Your task to perform on an android device: Open location settings Image 0: 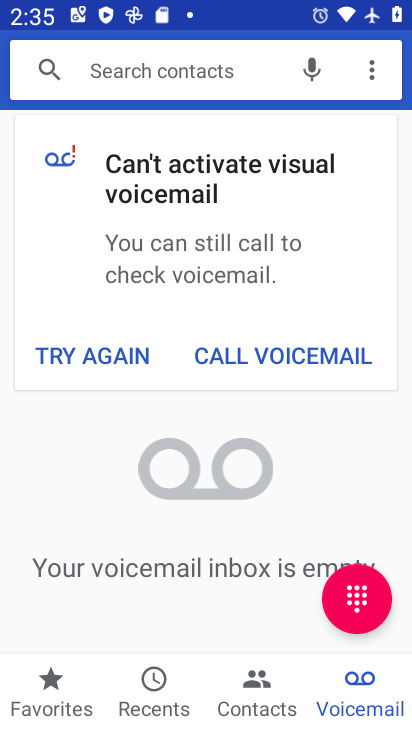
Step 0: press home button
Your task to perform on an android device: Open location settings Image 1: 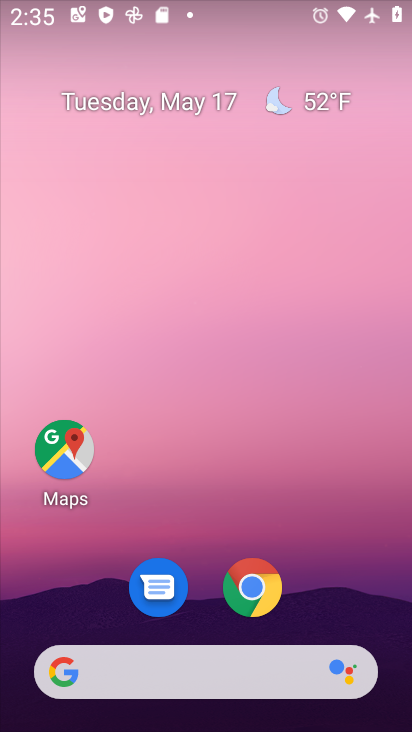
Step 1: drag from (349, 573) to (373, 73)
Your task to perform on an android device: Open location settings Image 2: 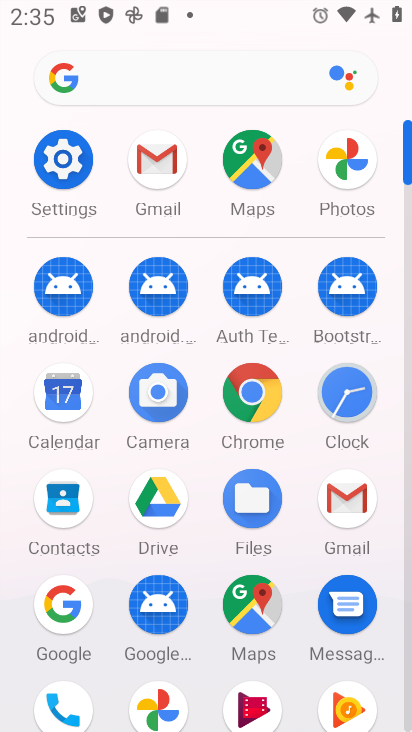
Step 2: click (78, 207)
Your task to perform on an android device: Open location settings Image 3: 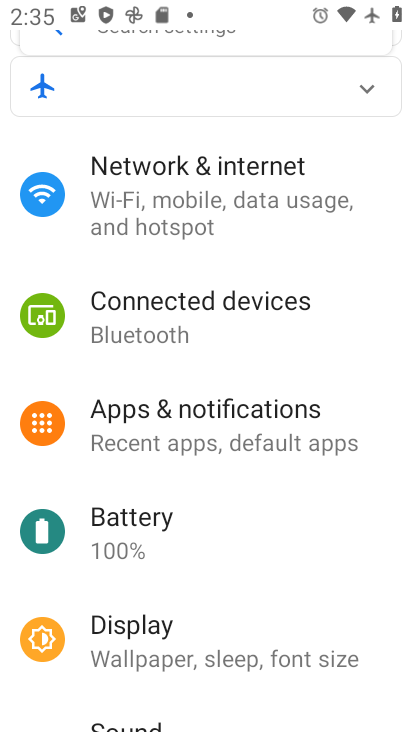
Step 3: click (283, 657)
Your task to perform on an android device: Open location settings Image 4: 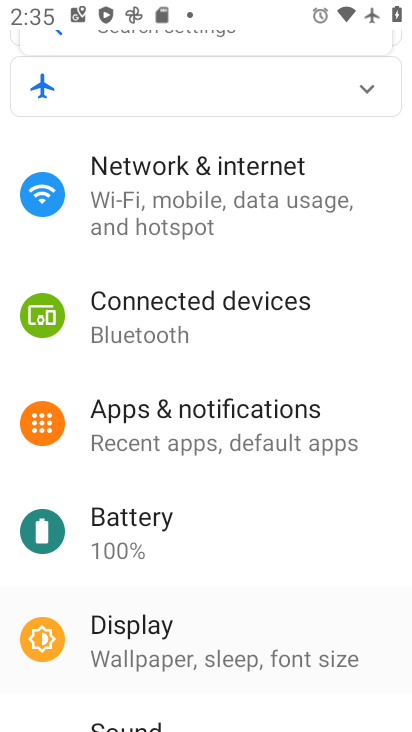
Step 4: drag from (283, 656) to (300, 333)
Your task to perform on an android device: Open location settings Image 5: 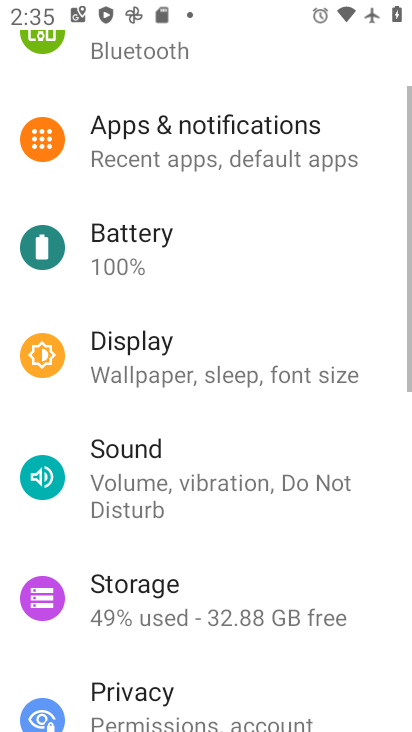
Step 5: drag from (237, 539) to (260, 359)
Your task to perform on an android device: Open location settings Image 6: 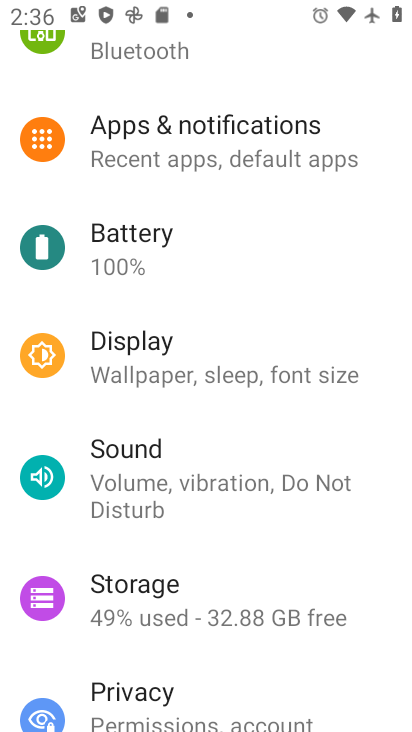
Step 6: drag from (208, 594) to (271, 436)
Your task to perform on an android device: Open location settings Image 7: 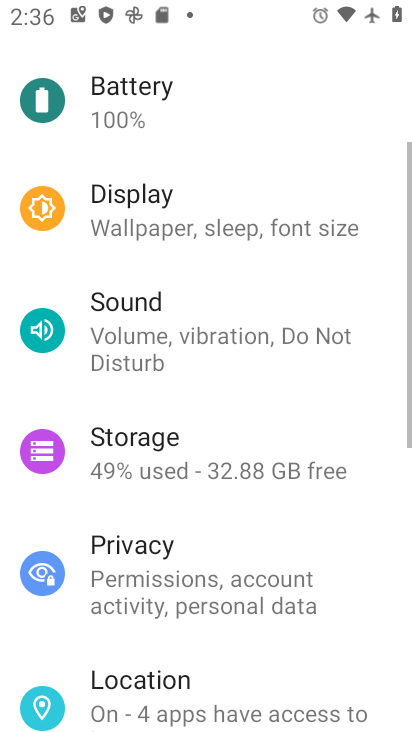
Step 7: drag from (224, 672) to (259, 426)
Your task to perform on an android device: Open location settings Image 8: 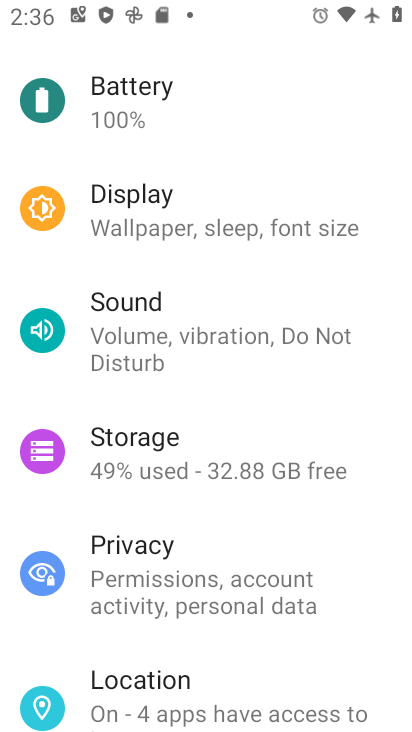
Step 8: click (154, 676)
Your task to perform on an android device: Open location settings Image 9: 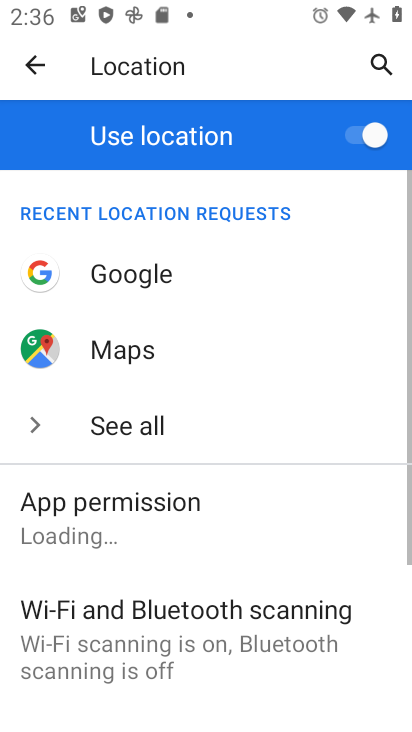
Step 9: task complete